Your task to perform on an android device: turn off location history Image 0: 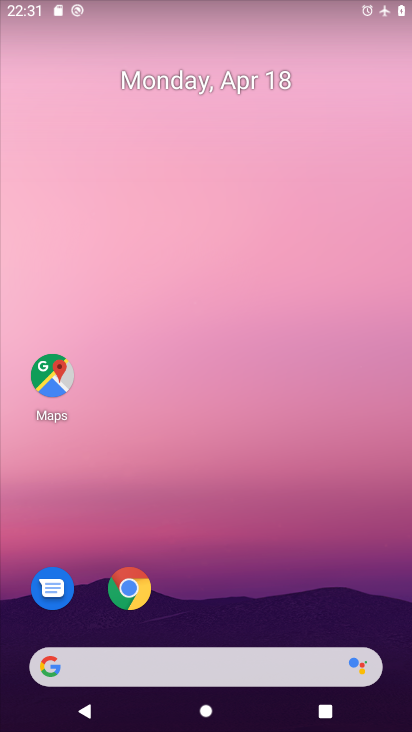
Step 0: drag from (278, 592) to (259, 1)
Your task to perform on an android device: turn off location history Image 1: 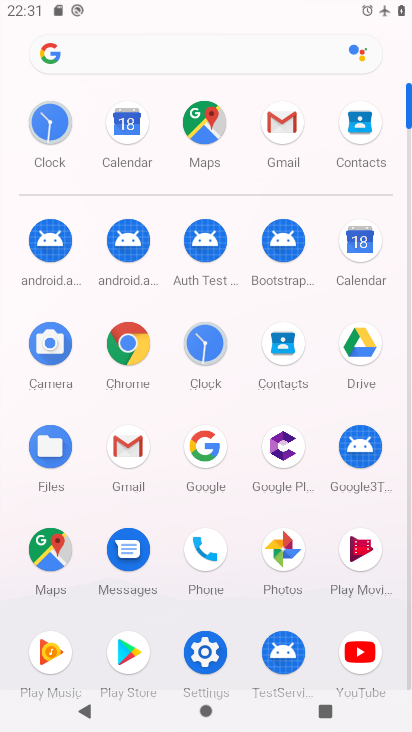
Step 1: click (211, 655)
Your task to perform on an android device: turn off location history Image 2: 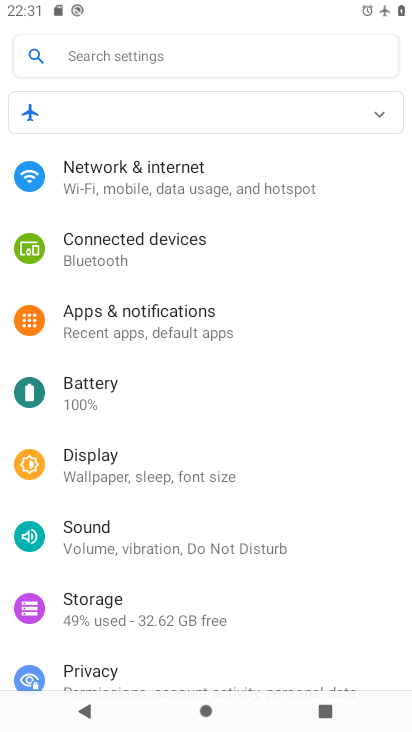
Step 2: drag from (198, 642) to (227, 556)
Your task to perform on an android device: turn off location history Image 3: 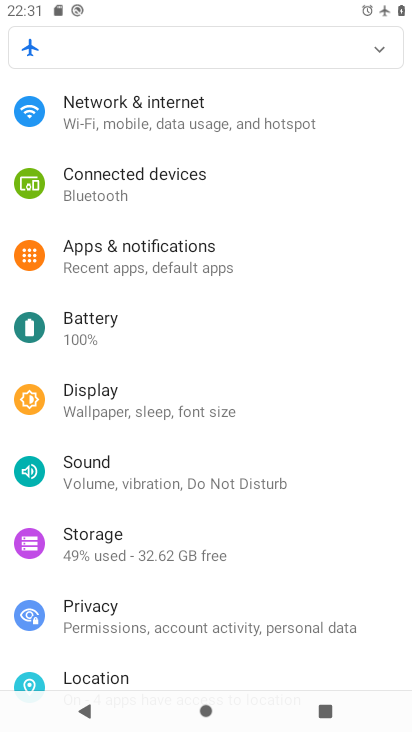
Step 3: drag from (199, 643) to (215, 536)
Your task to perform on an android device: turn off location history Image 4: 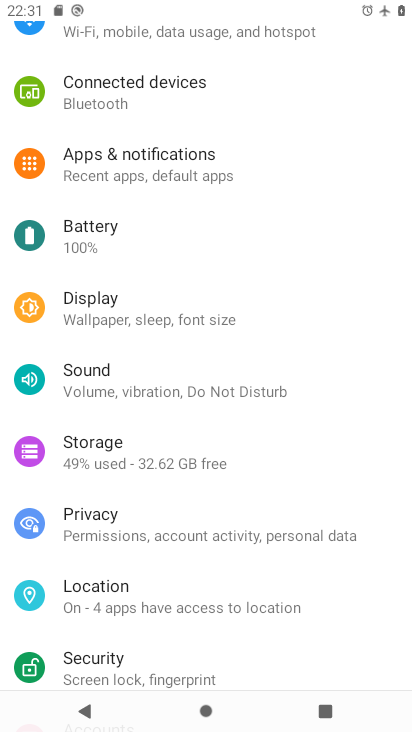
Step 4: click (170, 587)
Your task to perform on an android device: turn off location history Image 5: 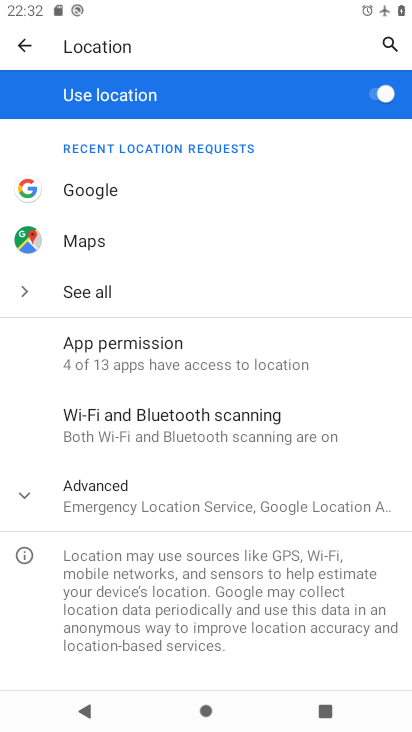
Step 5: click (131, 498)
Your task to perform on an android device: turn off location history Image 6: 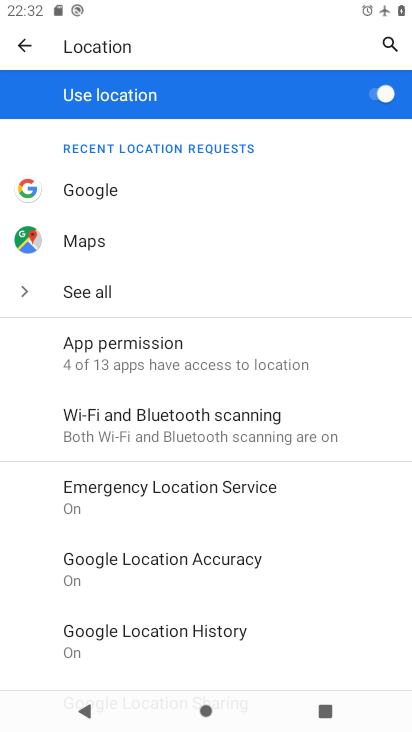
Step 6: click (135, 626)
Your task to perform on an android device: turn off location history Image 7: 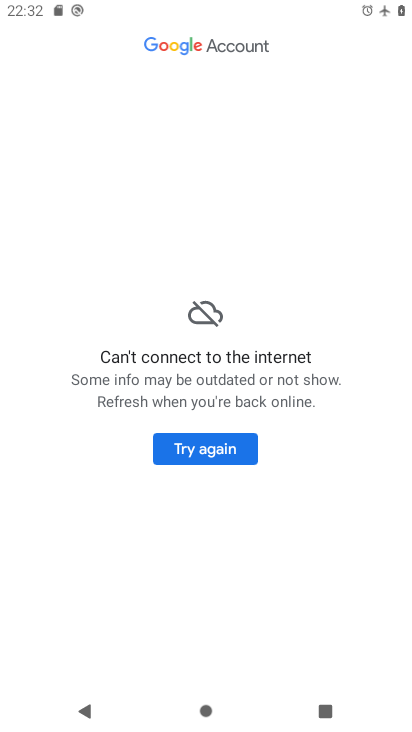
Step 7: task complete